Your task to perform on an android device: open chrome privacy settings Image 0: 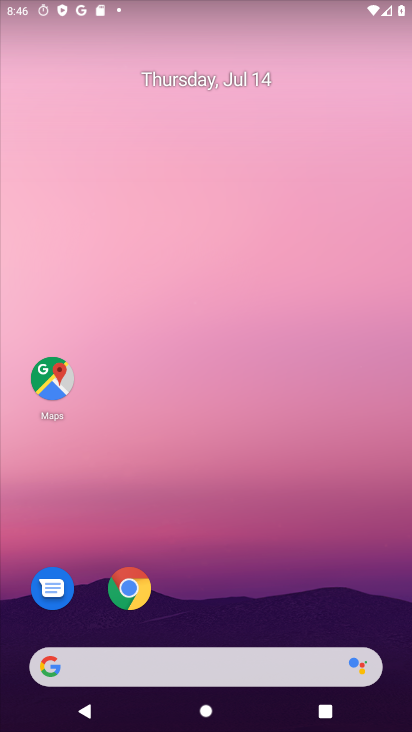
Step 0: drag from (275, 701) to (248, 152)
Your task to perform on an android device: open chrome privacy settings Image 1: 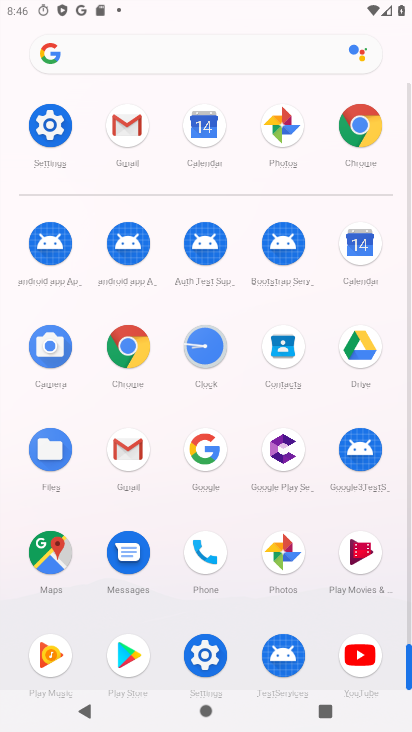
Step 1: click (210, 656)
Your task to perform on an android device: open chrome privacy settings Image 2: 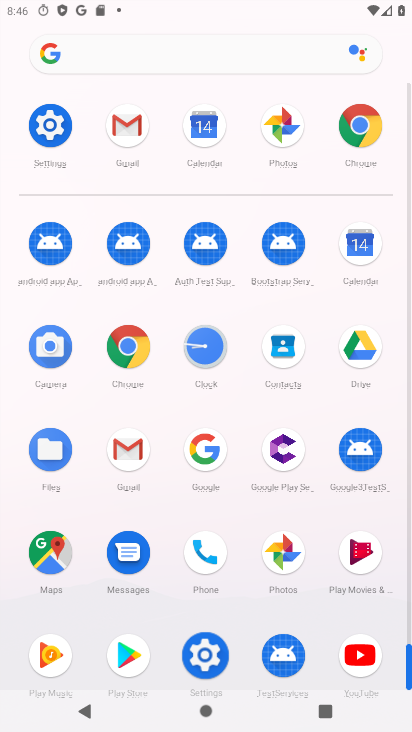
Step 2: click (211, 652)
Your task to perform on an android device: open chrome privacy settings Image 3: 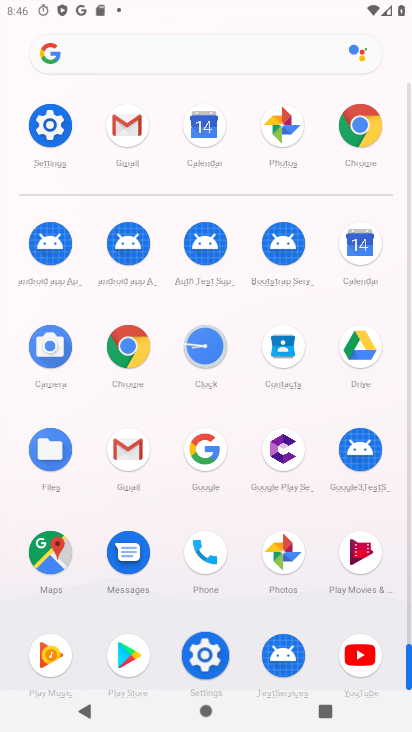
Step 3: click (211, 656)
Your task to perform on an android device: open chrome privacy settings Image 4: 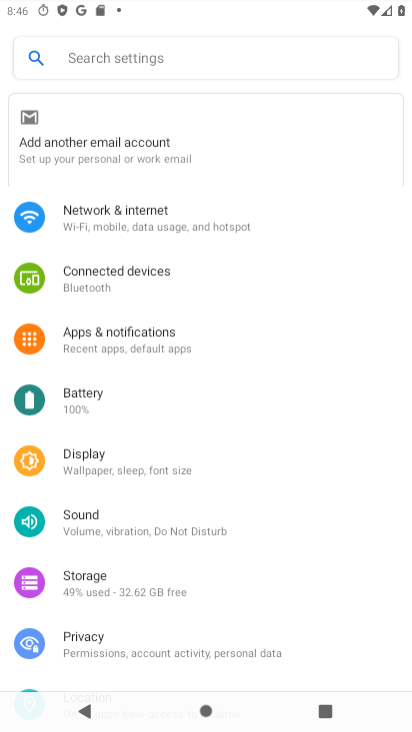
Step 4: click (219, 650)
Your task to perform on an android device: open chrome privacy settings Image 5: 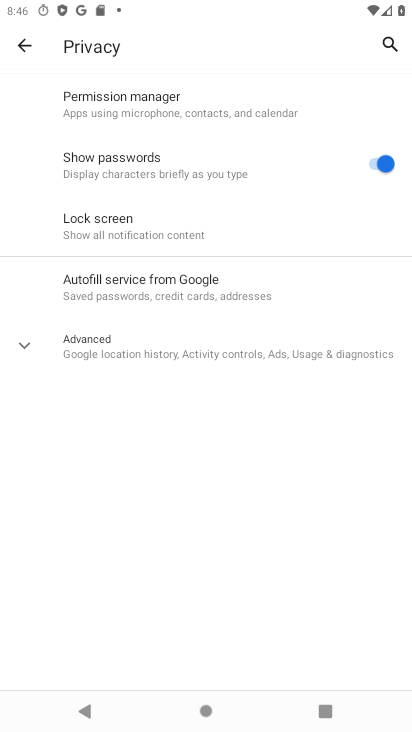
Step 5: task complete